Your task to perform on an android device: open app "Microsoft Outlook" Image 0: 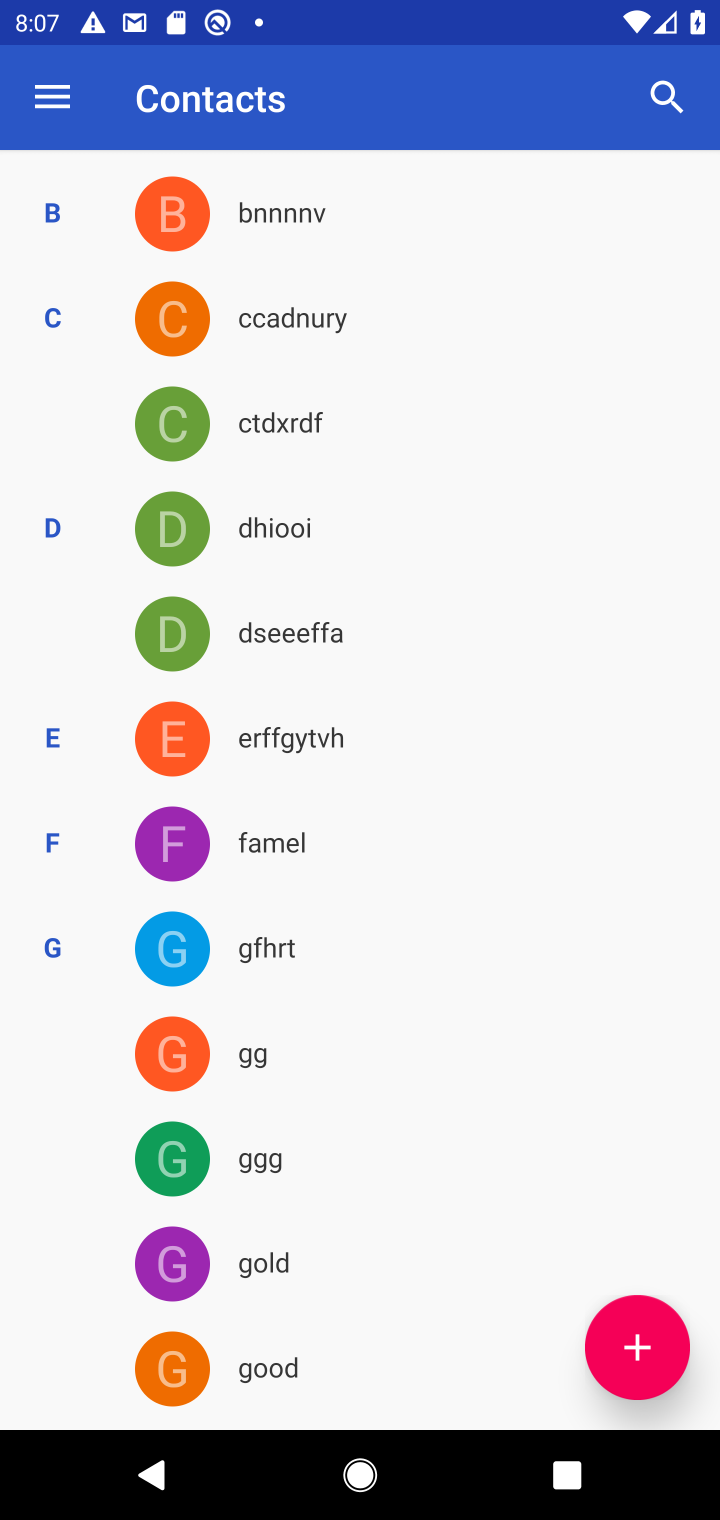
Step 0: press home button
Your task to perform on an android device: open app "Microsoft Outlook" Image 1: 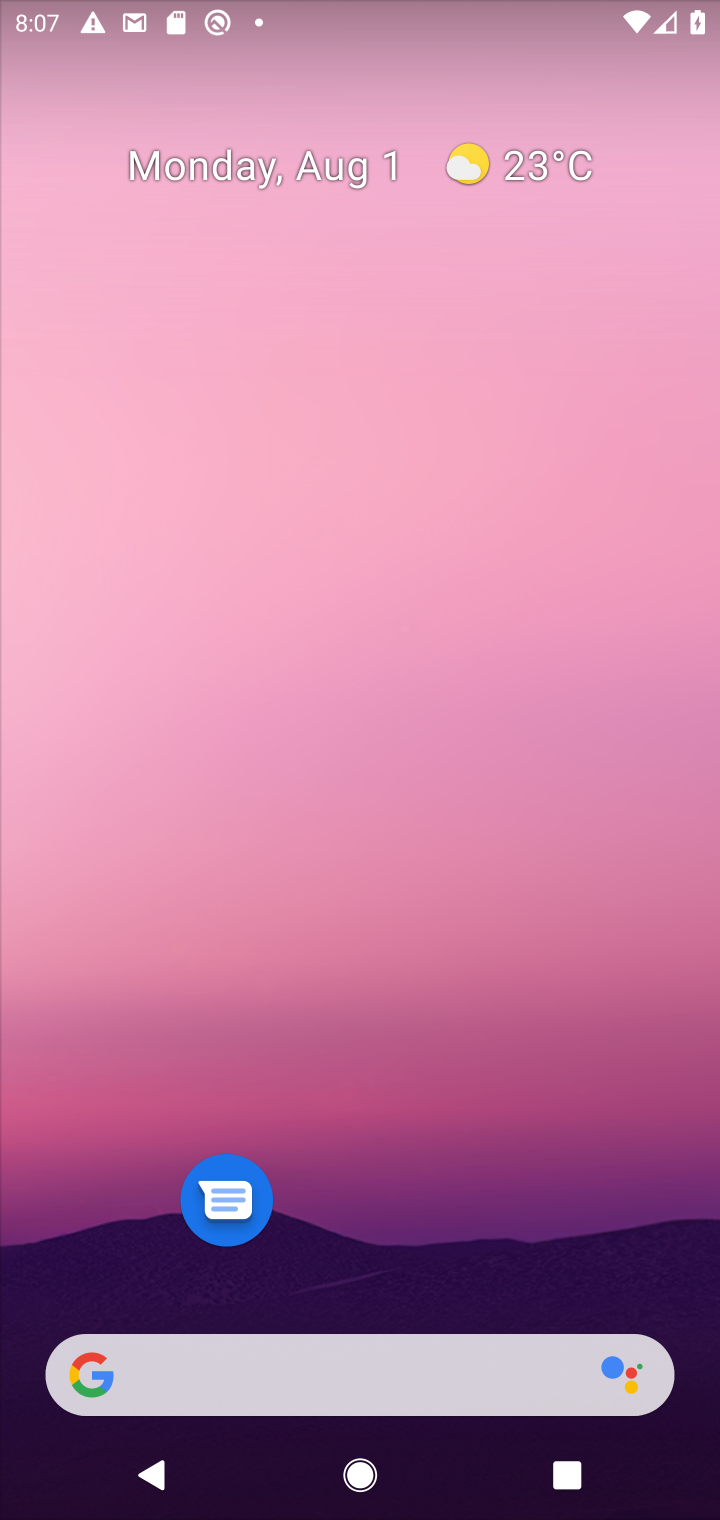
Step 1: drag from (295, 1346) to (447, 122)
Your task to perform on an android device: open app "Microsoft Outlook" Image 2: 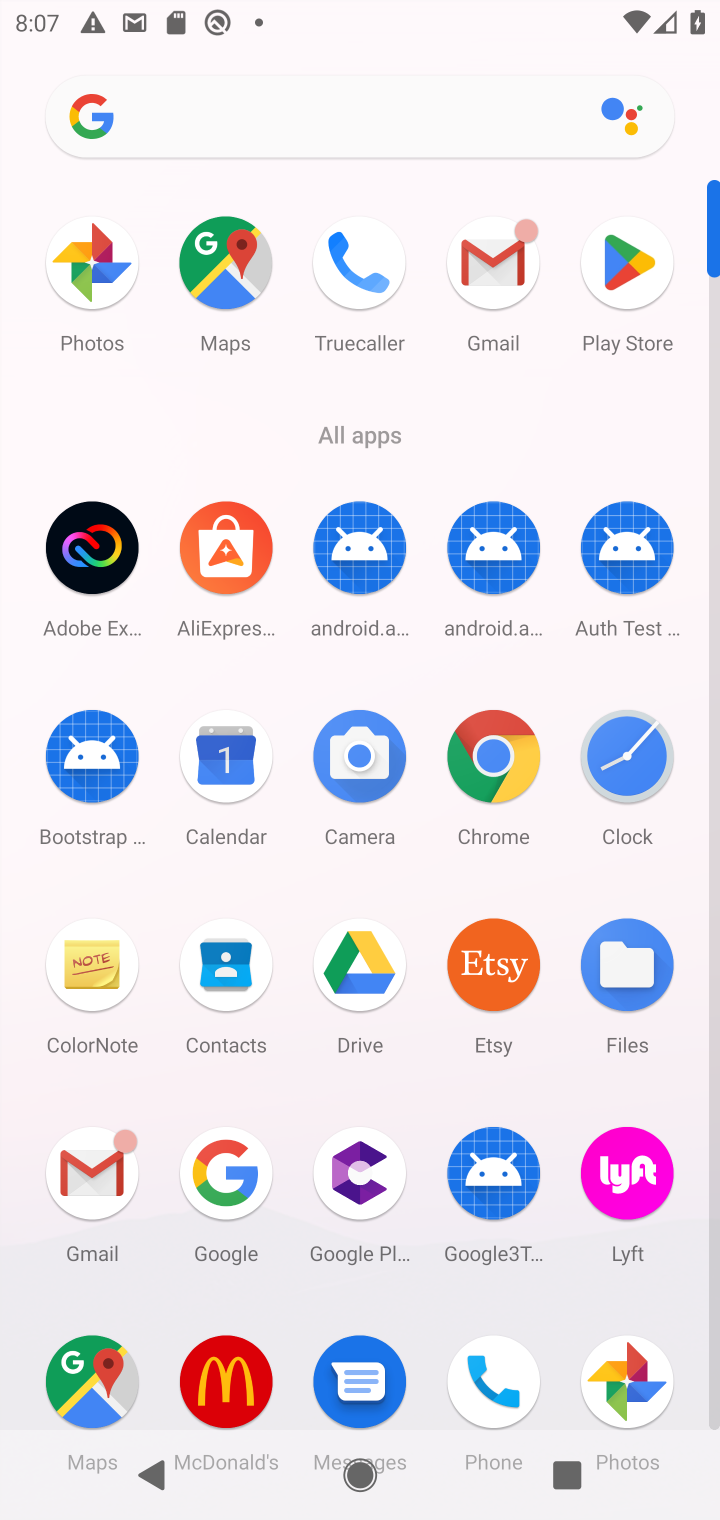
Step 2: click (649, 285)
Your task to perform on an android device: open app "Microsoft Outlook" Image 3: 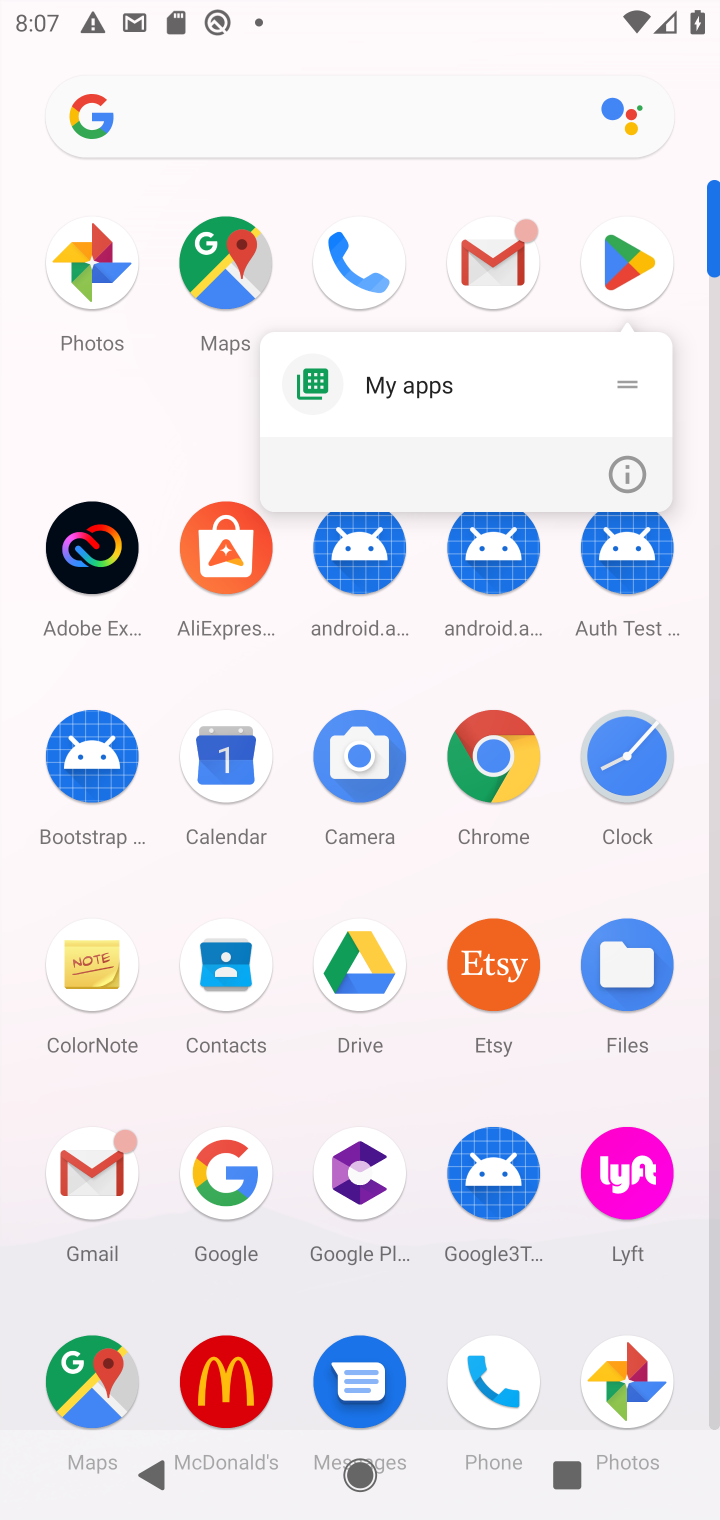
Step 3: click (634, 256)
Your task to perform on an android device: open app "Microsoft Outlook" Image 4: 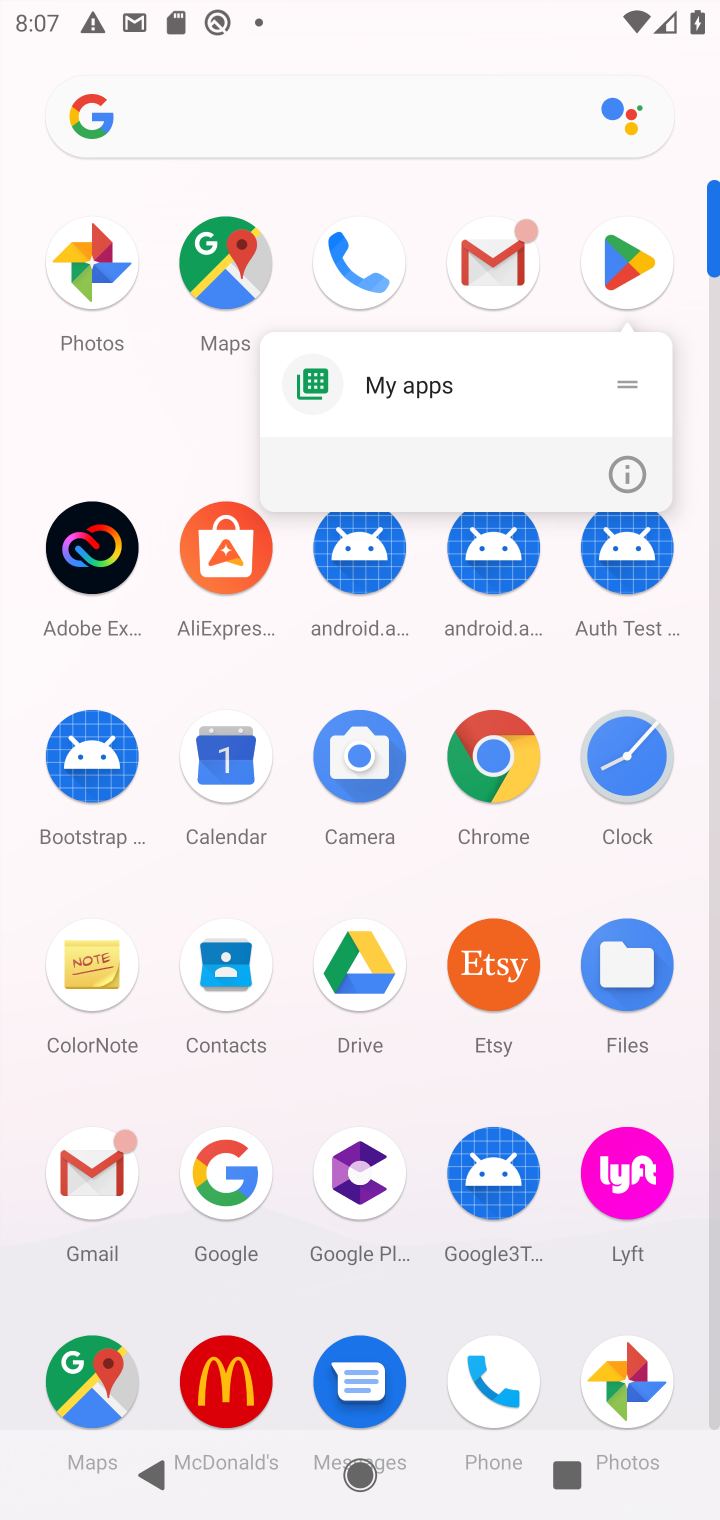
Step 4: click (634, 256)
Your task to perform on an android device: open app "Microsoft Outlook" Image 5: 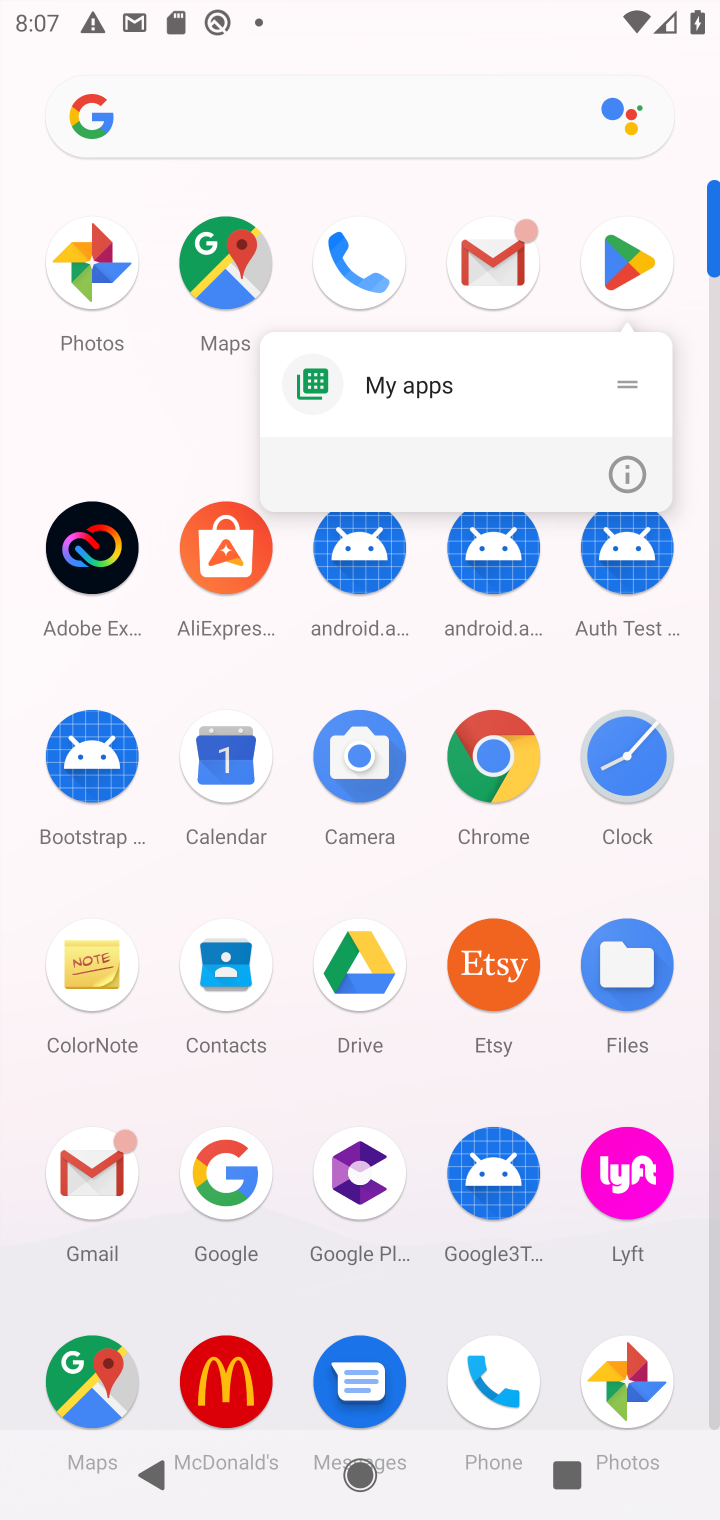
Step 5: click (634, 270)
Your task to perform on an android device: open app "Microsoft Outlook" Image 6: 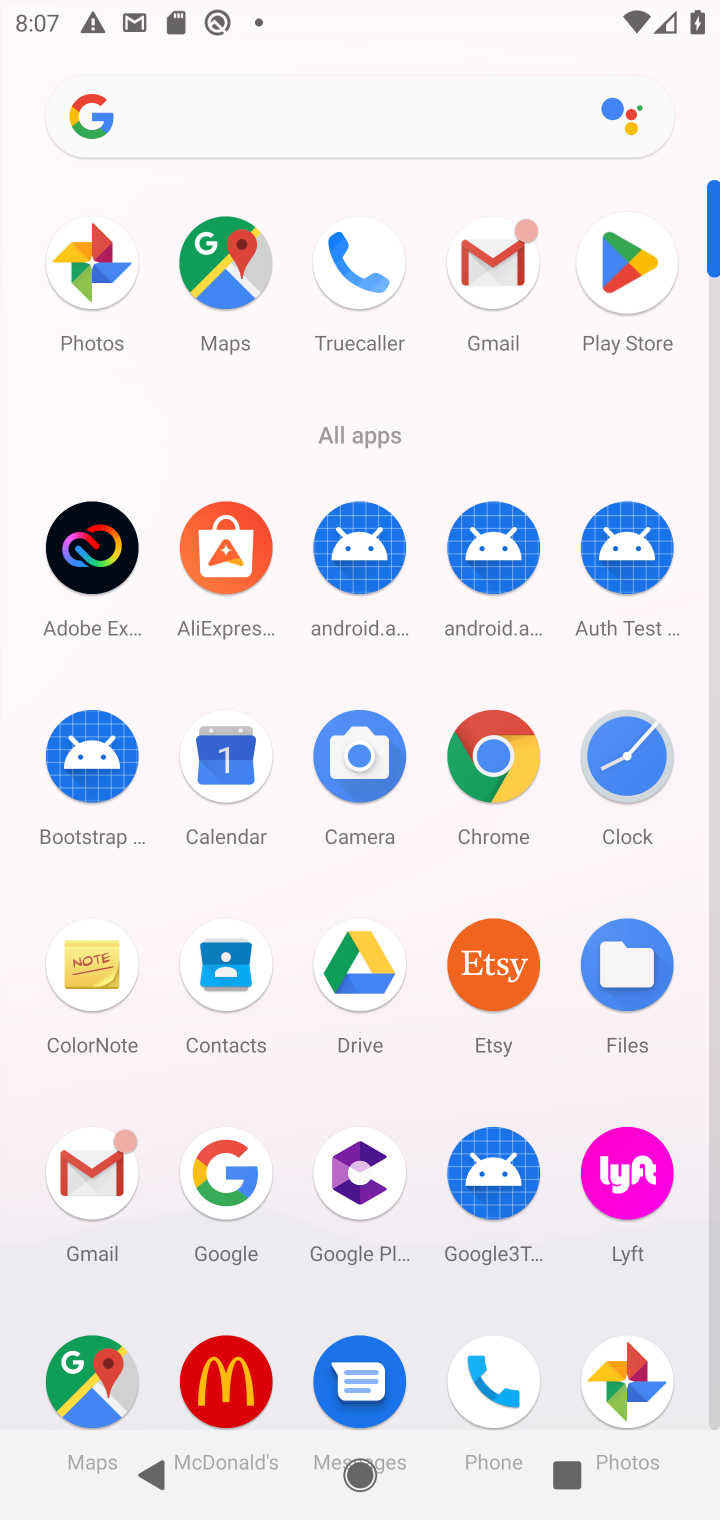
Step 6: click (456, 406)
Your task to perform on an android device: open app "Microsoft Outlook" Image 7: 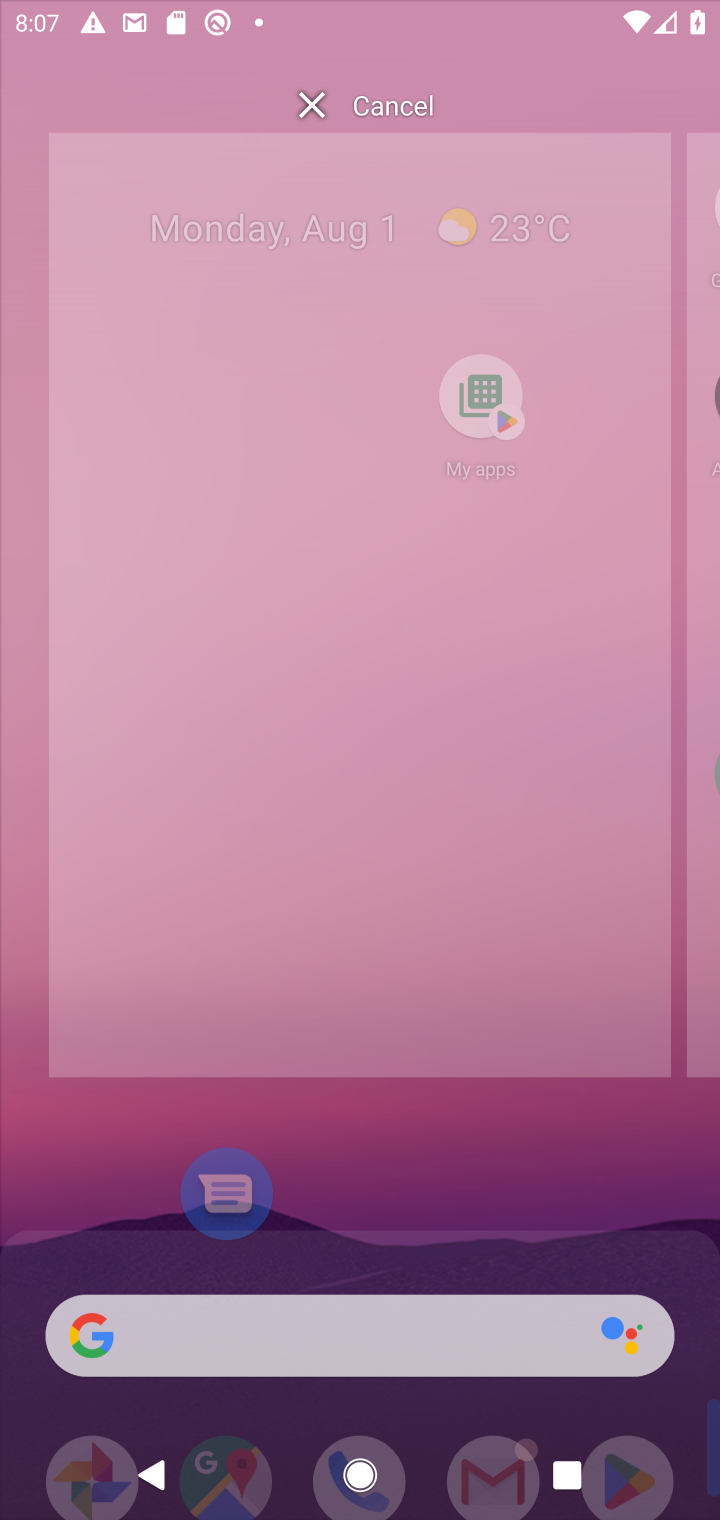
Step 7: click (577, 283)
Your task to perform on an android device: open app "Microsoft Outlook" Image 8: 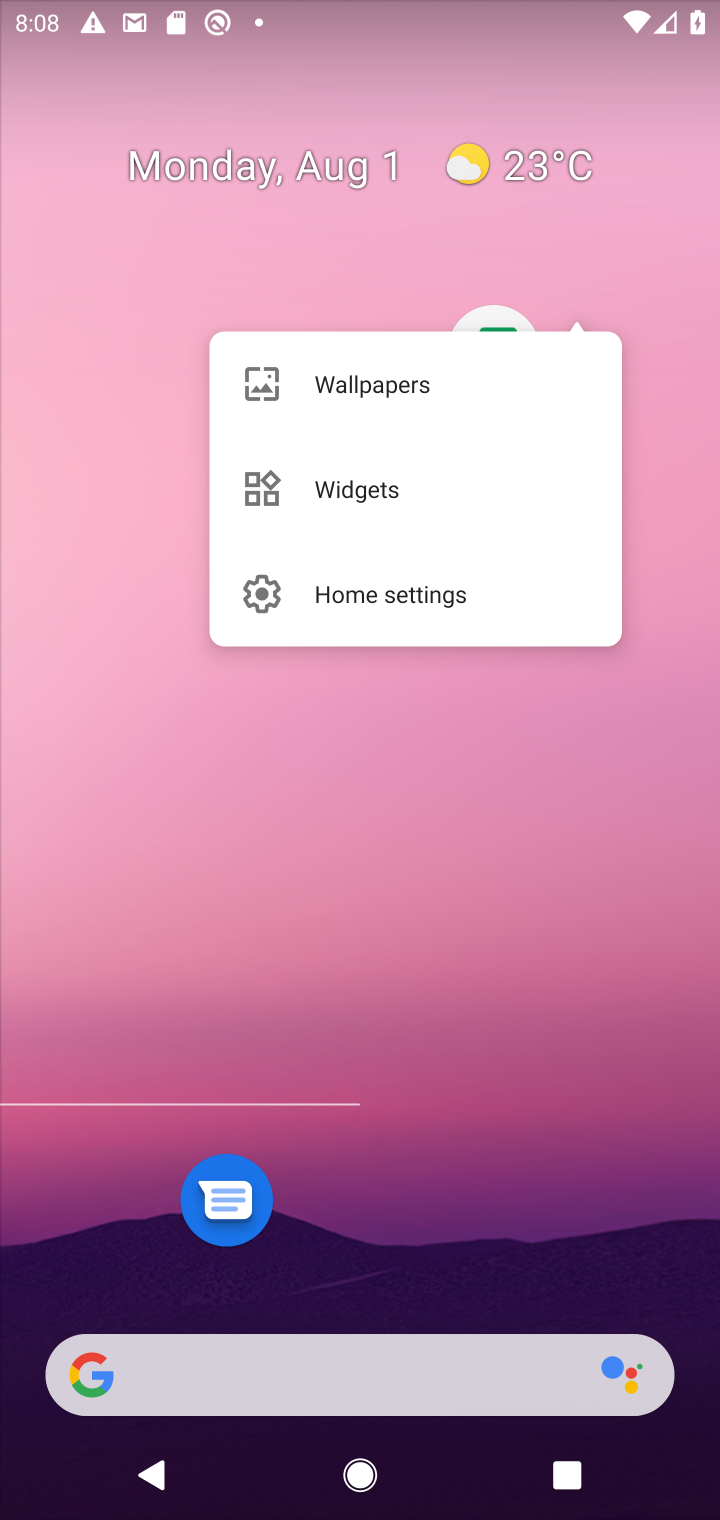
Step 8: task complete